Your task to perform on an android device: Search for sushi restaurants on Maps Image 0: 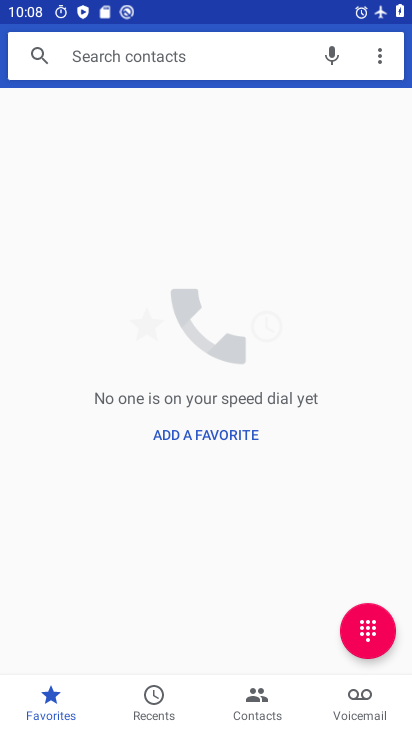
Step 0: press back button
Your task to perform on an android device: Search for sushi restaurants on Maps Image 1: 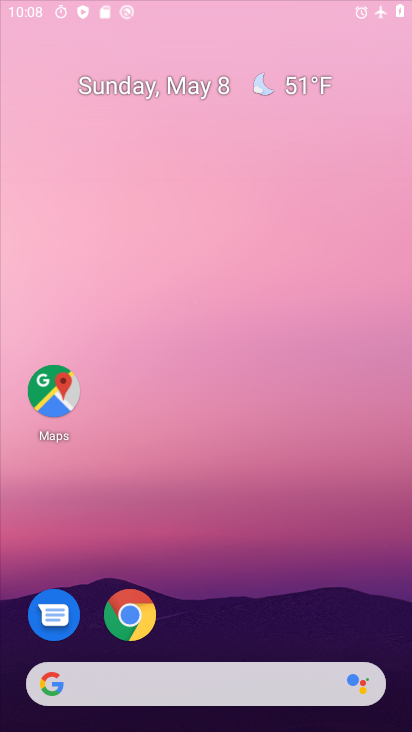
Step 1: press home button
Your task to perform on an android device: Search for sushi restaurants on Maps Image 2: 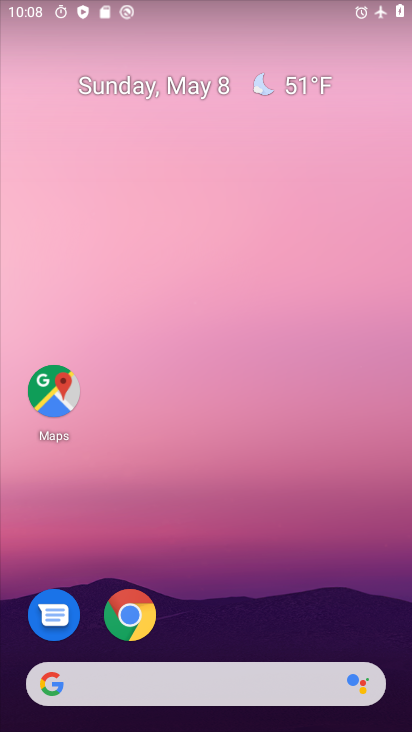
Step 2: click (67, 390)
Your task to perform on an android device: Search for sushi restaurants on Maps Image 3: 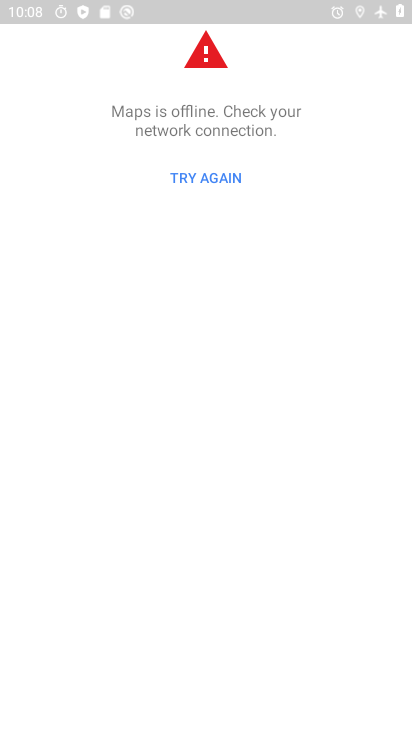
Step 3: task complete